Your task to perform on an android device: See recent photos Image 0: 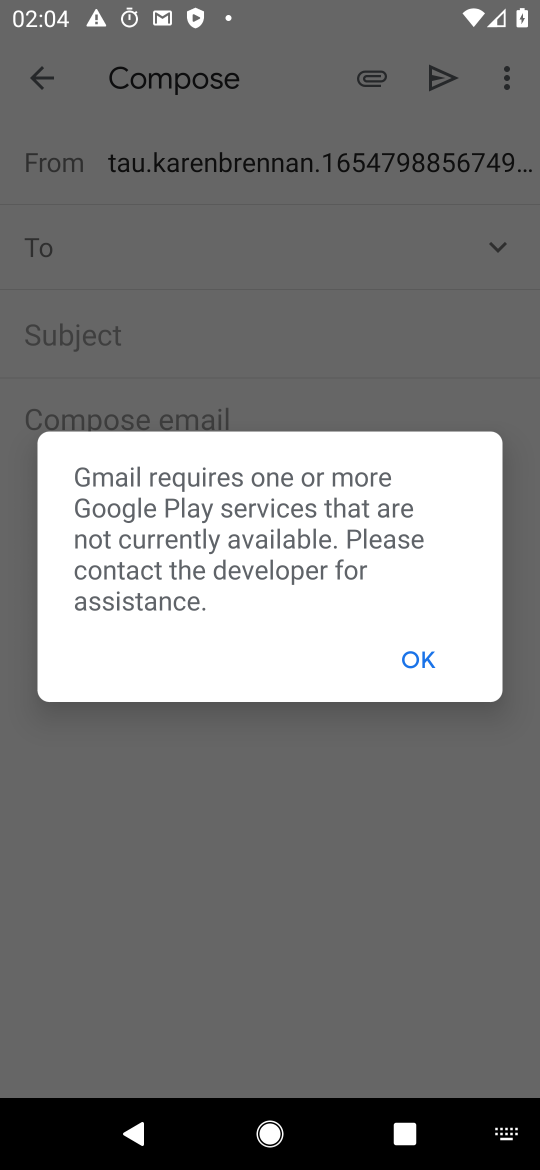
Step 0: press home button
Your task to perform on an android device: See recent photos Image 1: 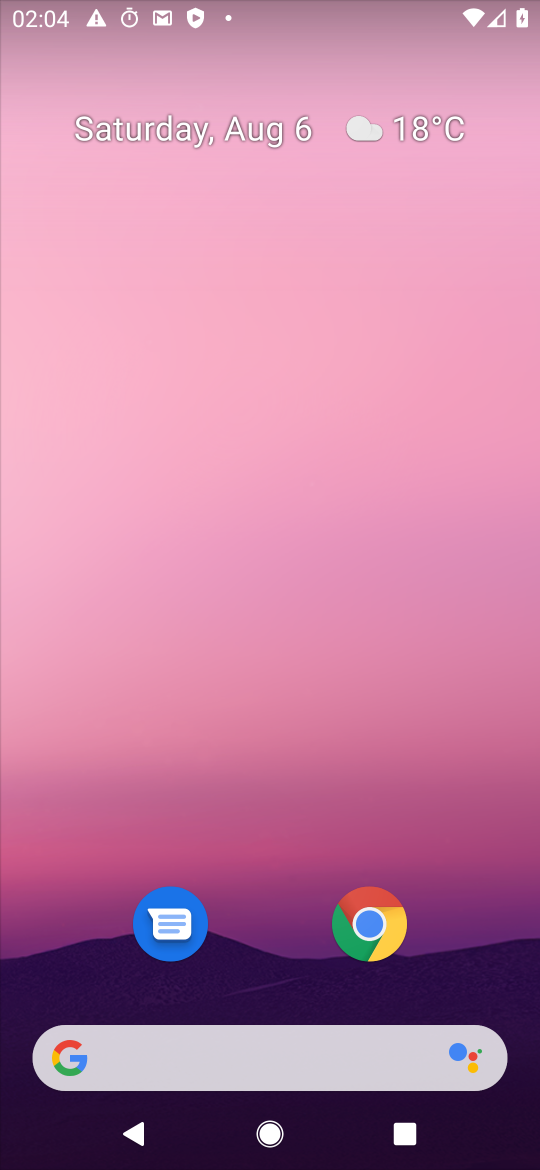
Step 1: drag from (208, 1039) to (387, 13)
Your task to perform on an android device: See recent photos Image 2: 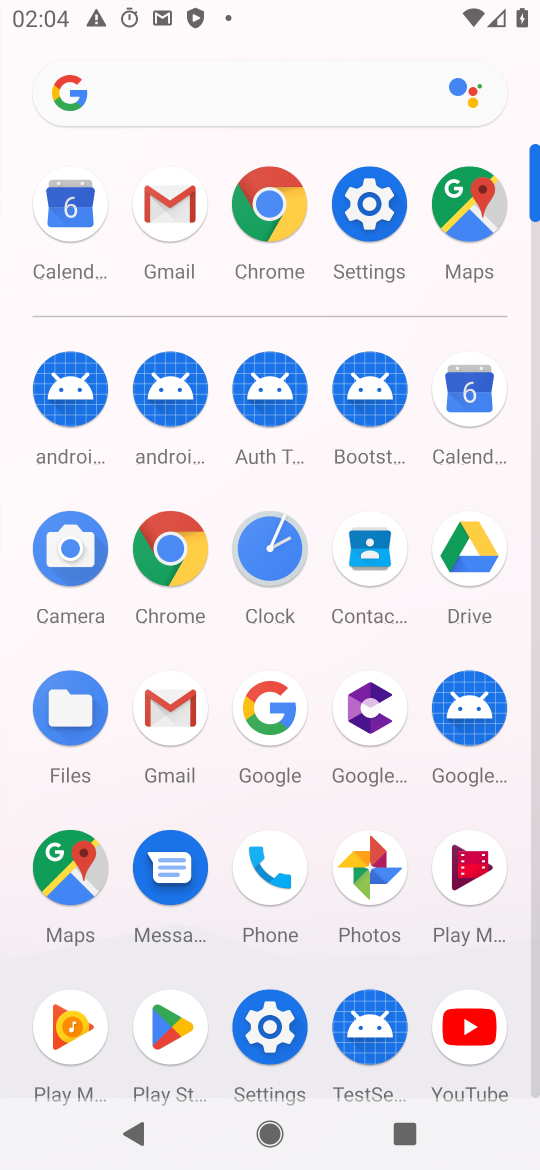
Step 2: click (357, 873)
Your task to perform on an android device: See recent photos Image 3: 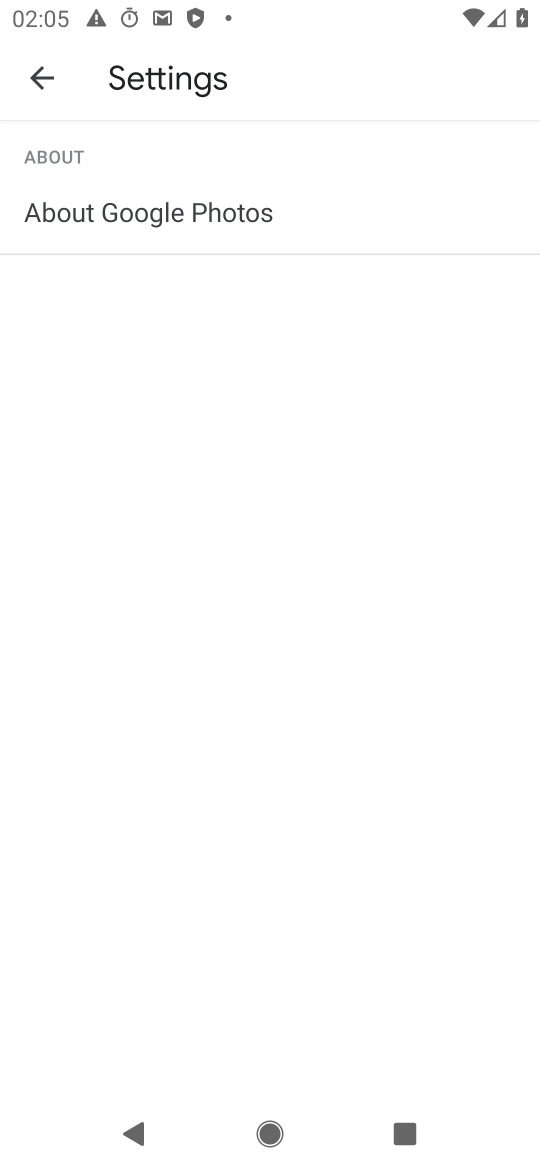
Step 3: task complete